Your task to perform on an android device: toggle javascript in the chrome app Image 0: 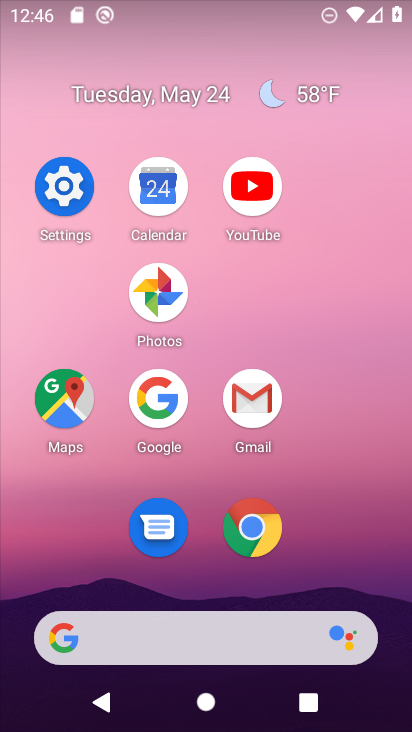
Step 0: click (267, 515)
Your task to perform on an android device: toggle javascript in the chrome app Image 1: 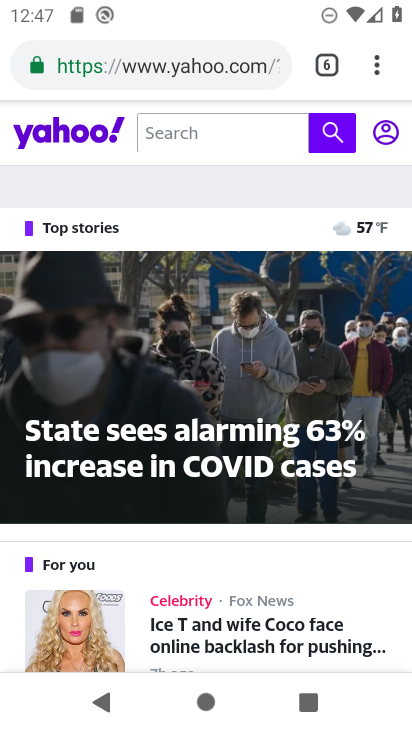
Step 1: click (384, 53)
Your task to perform on an android device: toggle javascript in the chrome app Image 2: 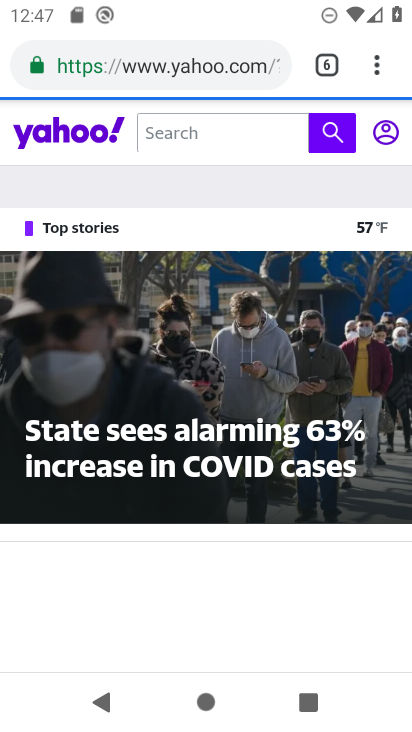
Step 2: click (381, 75)
Your task to perform on an android device: toggle javascript in the chrome app Image 3: 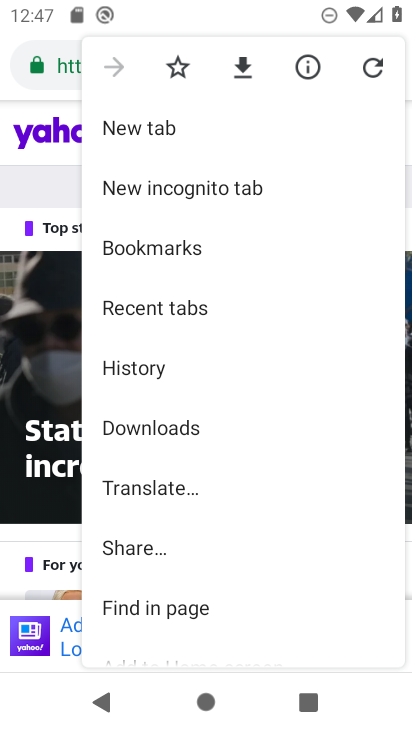
Step 3: drag from (245, 523) to (214, 190)
Your task to perform on an android device: toggle javascript in the chrome app Image 4: 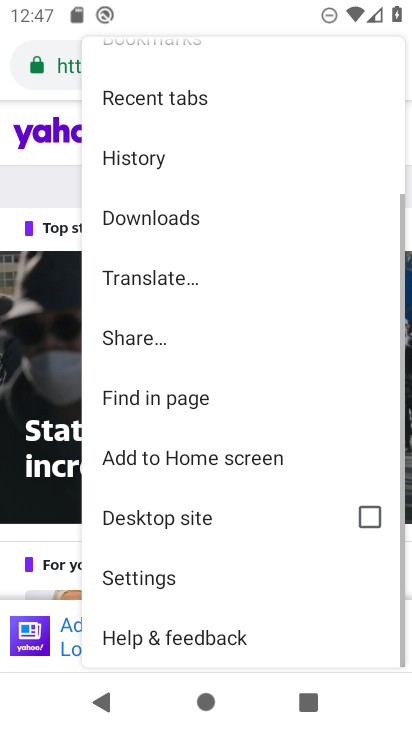
Step 4: click (233, 569)
Your task to perform on an android device: toggle javascript in the chrome app Image 5: 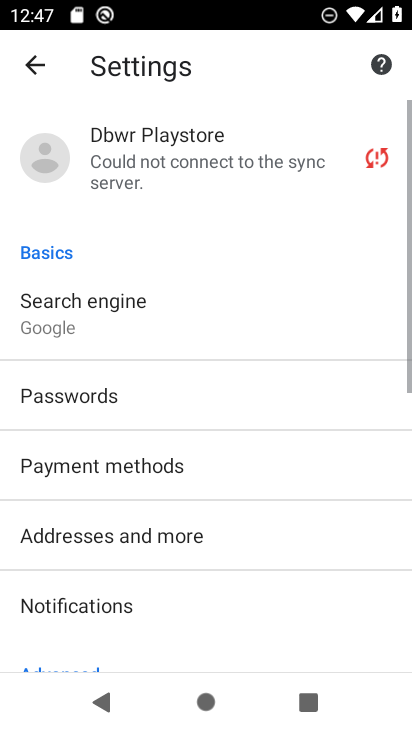
Step 5: drag from (221, 557) to (142, 180)
Your task to perform on an android device: toggle javascript in the chrome app Image 6: 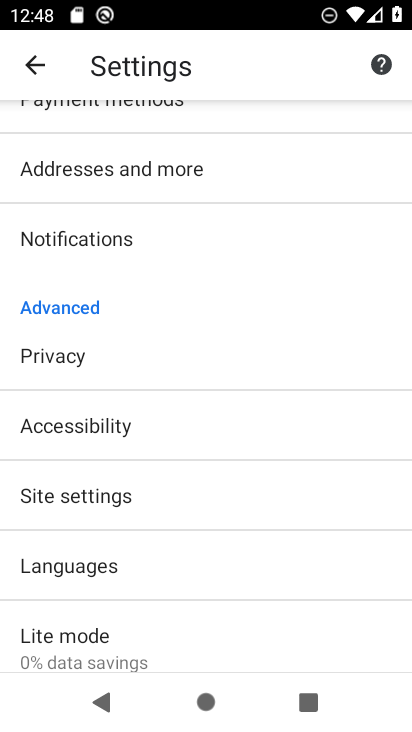
Step 6: drag from (178, 536) to (131, 247)
Your task to perform on an android device: toggle javascript in the chrome app Image 7: 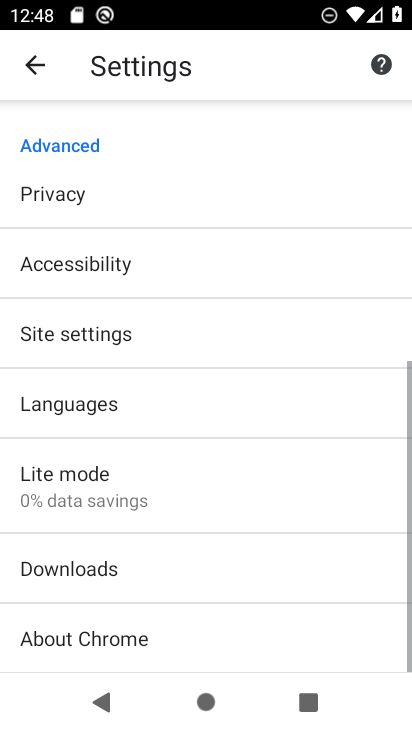
Step 7: click (164, 342)
Your task to perform on an android device: toggle javascript in the chrome app Image 8: 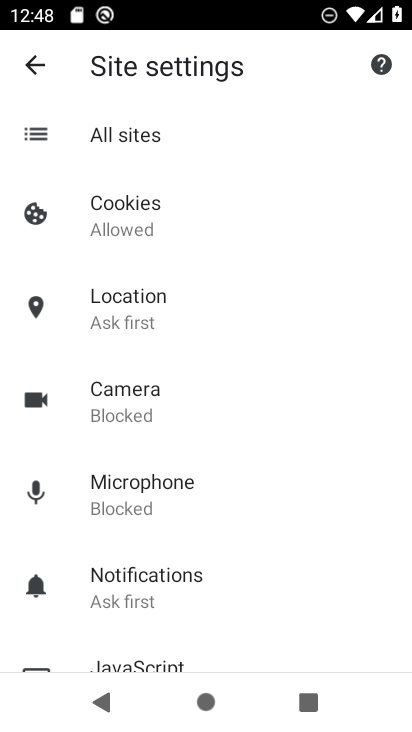
Step 8: drag from (256, 547) to (239, 200)
Your task to perform on an android device: toggle javascript in the chrome app Image 9: 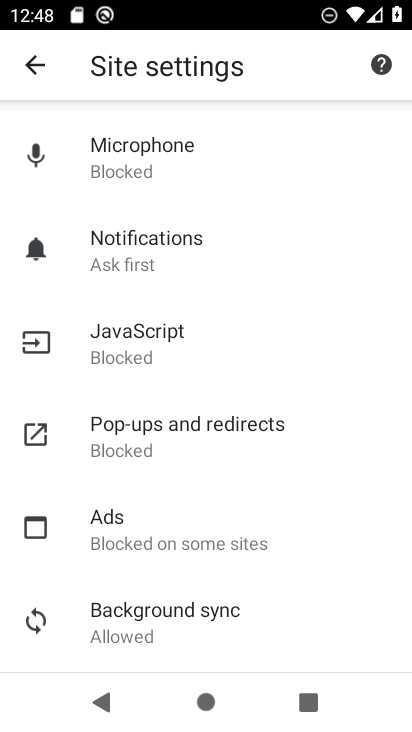
Step 9: click (250, 333)
Your task to perform on an android device: toggle javascript in the chrome app Image 10: 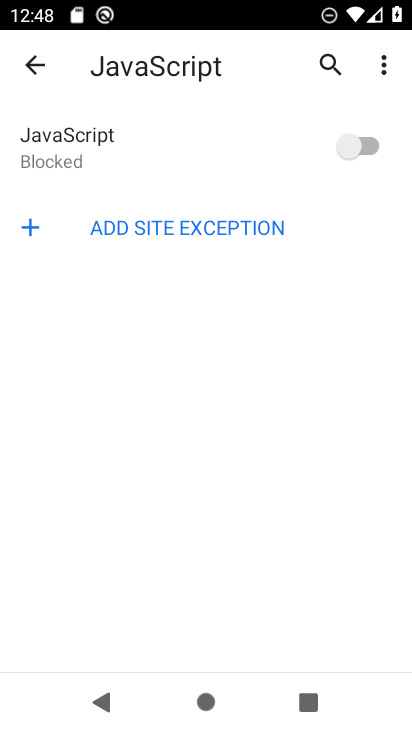
Step 10: click (352, 137)
Your task to perform on an android device: toggle javascript in the chrome app Image 11: 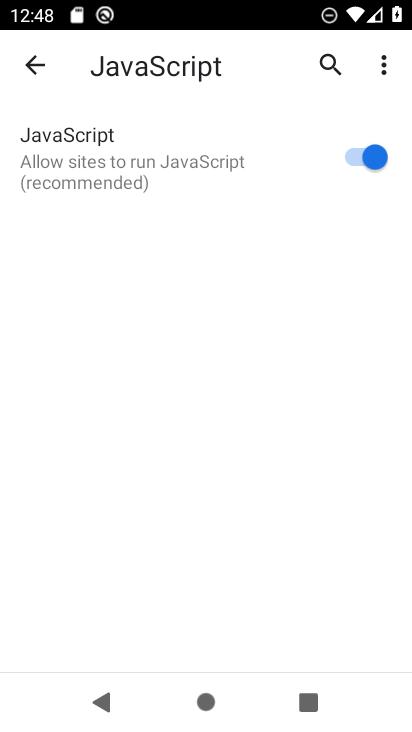
Step 11: task complete